Your task to perform on an android device: Open Youtube and go to "Your channel" Image 0: 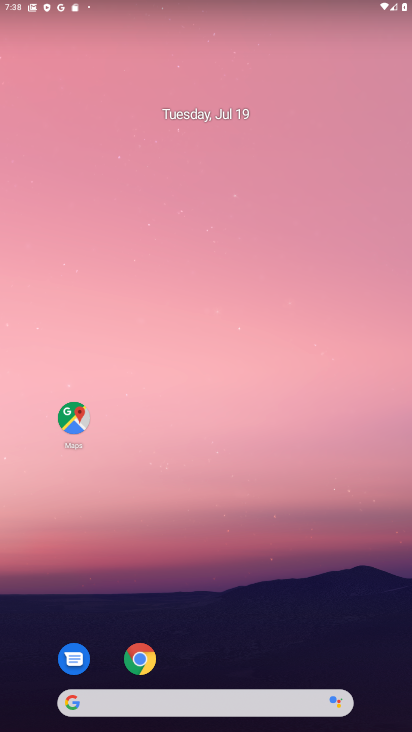
Step 0: drag from (209, 628) to (333, 26)
Your task to perform on an android device: Open Youtube and go to "Your channel" Image 1: 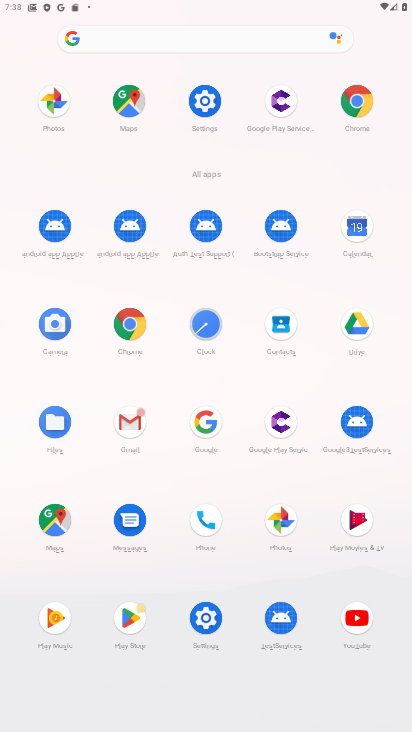
Step 1: click (352, 630)
Your task to perform on an android device: Open Youtube and go to "Your channel" Image 2: 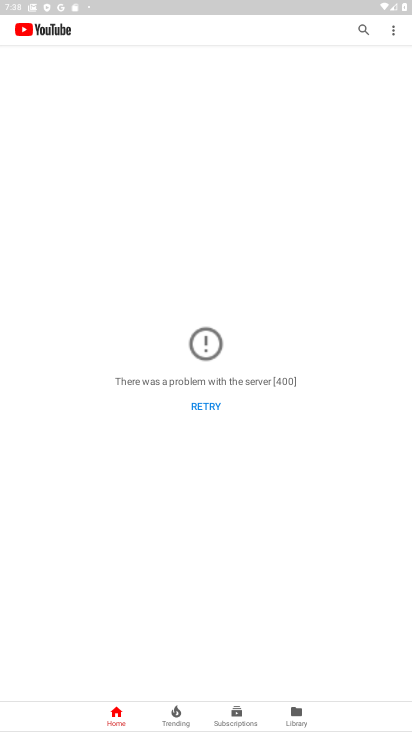
Step 2: click (208, 400)
Your task to perform on an android device: Open Youtube and go to "Your channel" Image 3: 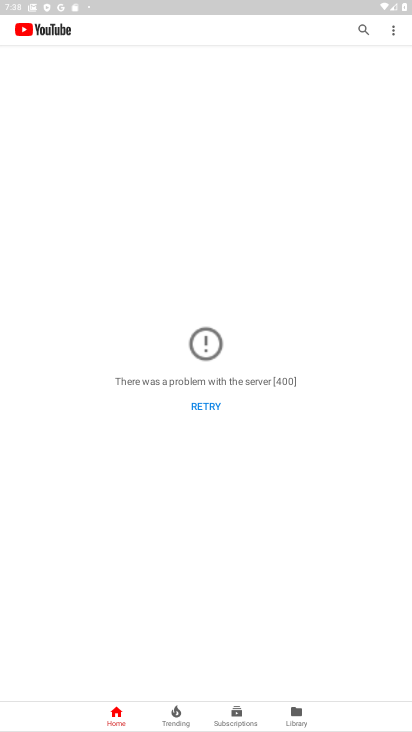
Step 3: click (208, 400)
Your task to perform on an android device: Open Youtube and go to "Your channel" Image 4: 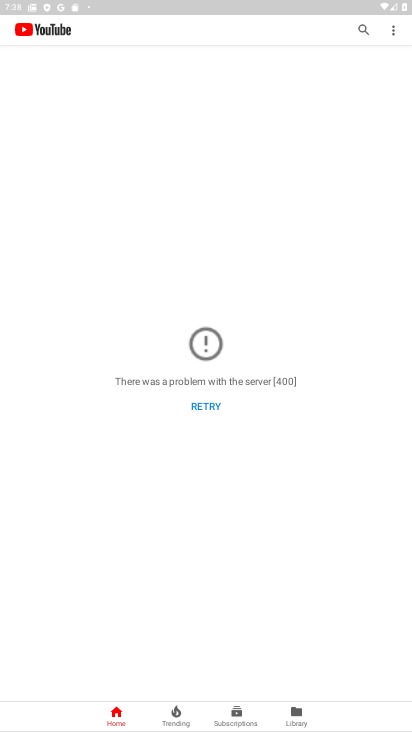
Step 4: click (298, 721)
Your task to perform on an android device: Open Youtube and go to "Your channel" Image 5: 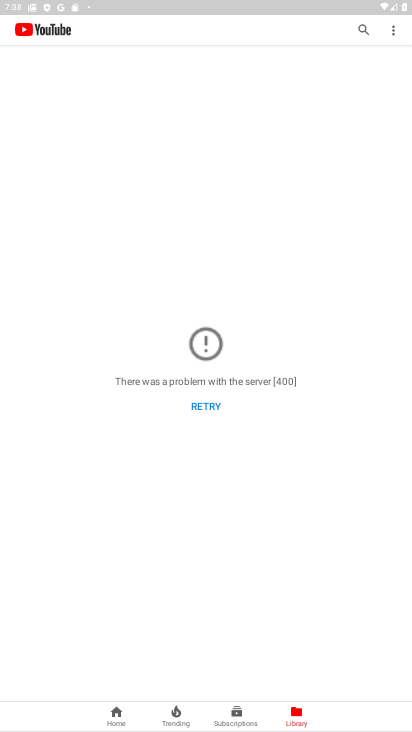
Step 5: click (201, 406)
Your task to perform on an android device: Open Youtube and go to "Your channel" Image 6: 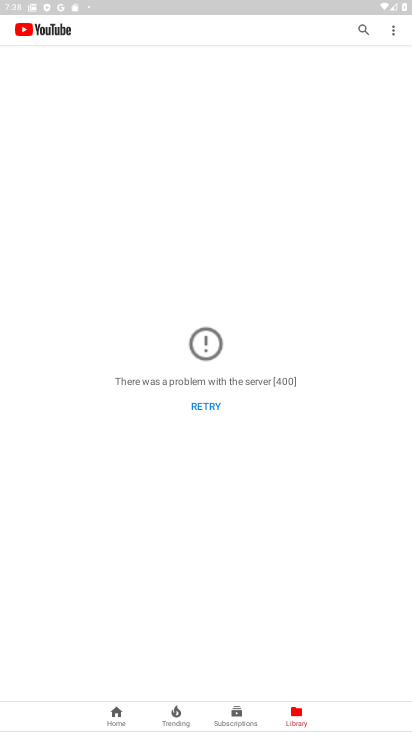
Step 6: task complete